Your task to perform on an android device: toggle show notifications on the lock screen Image 0: 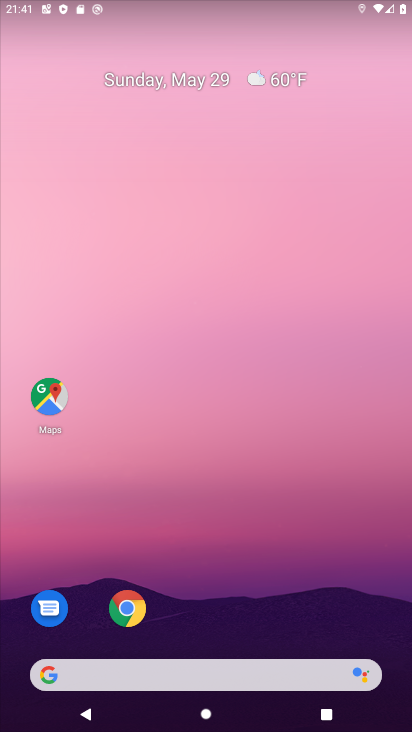
Step 0: drag from (381, 630) to (368, 189)
Your task to perform on an android device: toggle show notifications on the lock screen Image 1: 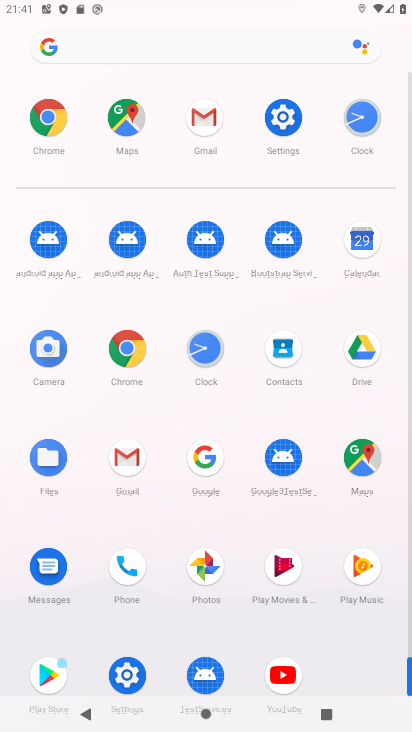
Step 1: click (286, 134)
Your task to perform on an android device: toggle show notifications on the lock screen Image 2: 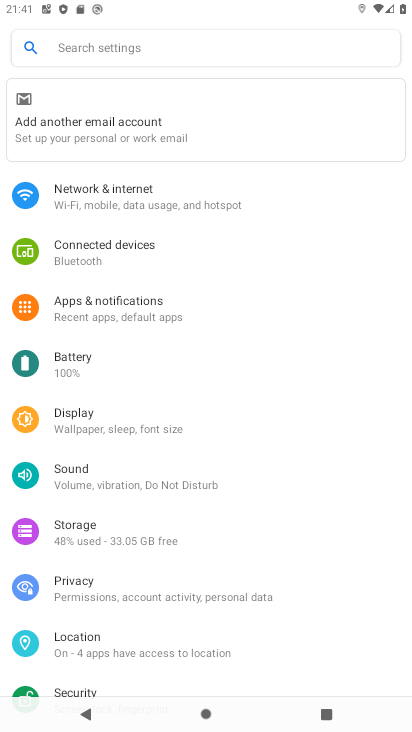
Step 2: drag from (325, 565) to (339, 444)
Your task to perform on an android device: toggle show notifications on the lock screen Image 3: 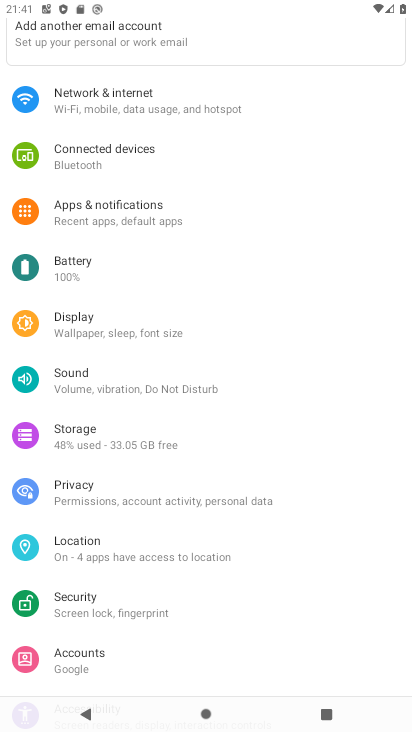
Step 3: drag from (331, 601) to (352, 460)
Your task to perform on an android device: toggle show notifications on the lock screen Image 4: 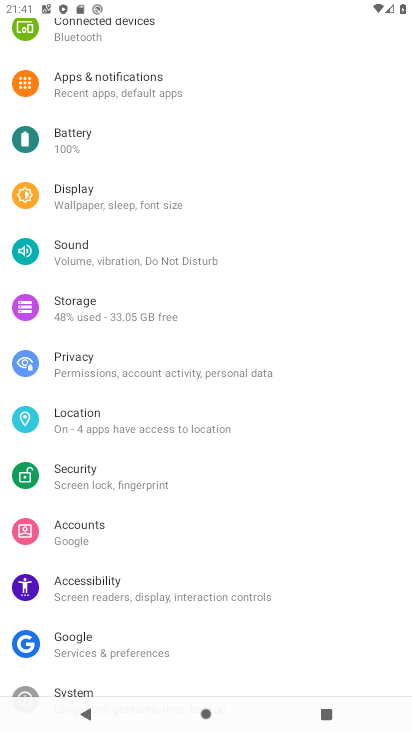
Step 4: drag from (350, 622) to (346, 476)
Your task to perform on an android device: toggle show notifications on the lock screen Image 5: 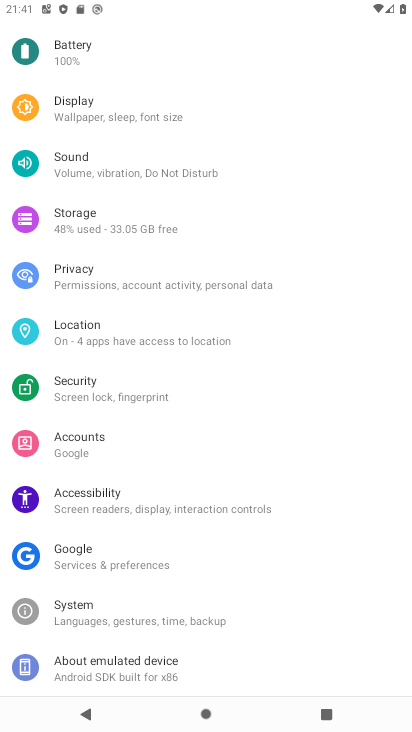
Step 5: drag from (352, 631) to (363, 413)
Your task to perform on an android device: toggle show notifications on the lock screen Image 6: 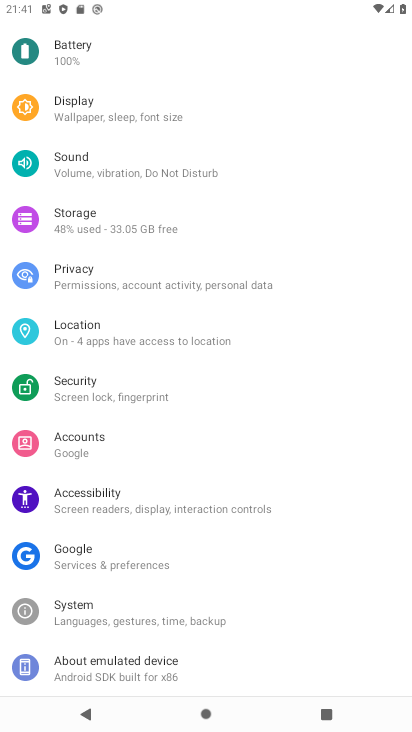
Step 6: drag from (370, 290) to (361, 418)
Your task to perform on an android device: toggle show notifications on the lock screen Image 7: 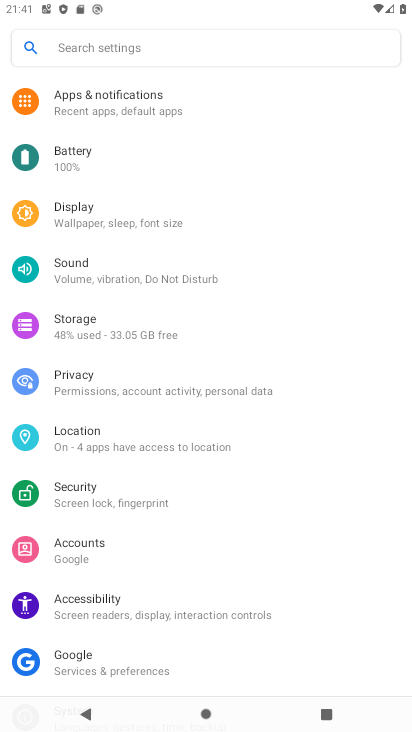
Step 7: drag from (356, 276) to (368, 398)
Your task to perform on an android device: toggle show notifications on the lock screen Image 8: 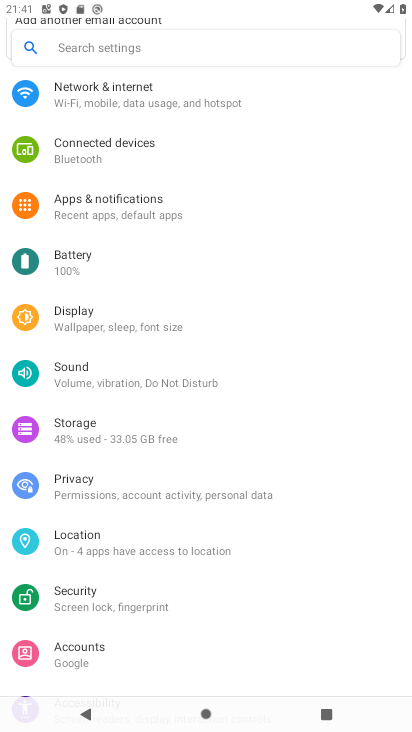
Step 8: drag from (369, 251) to (366, 393)
Your task to perform on an android device: toggle show notifications on the lock screen Image 9: 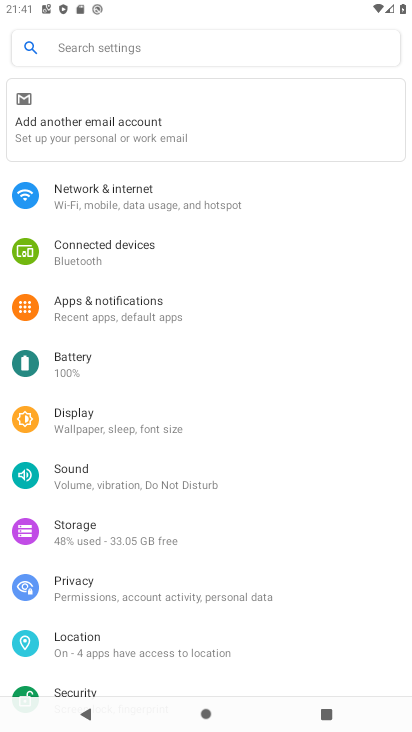
Step 9: drag from (339, 258) to (343, 455)
Your task to perform on an android device: toggle show notifications on the lock screen Image 10: 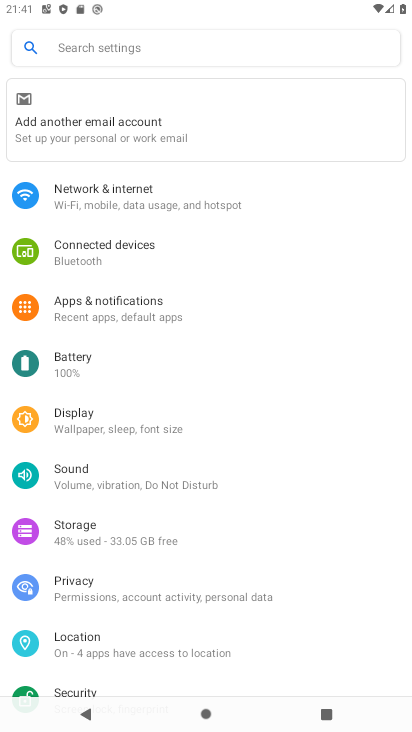
Step 10: click (206, 318)
Your task to perform on an android device: toggle show notifications on the lock screen Image 11: 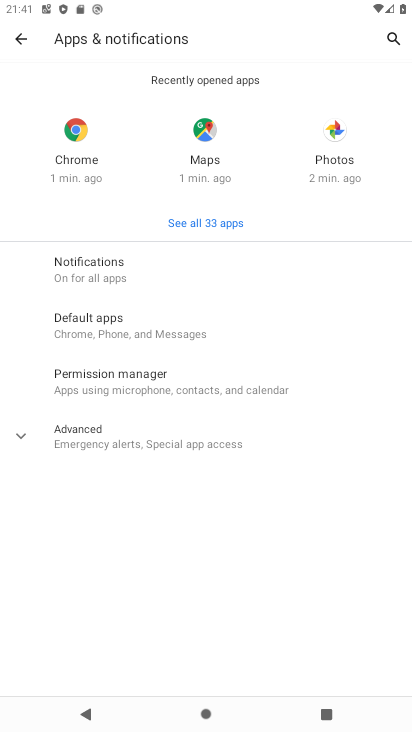
Step 11: click (170, 270)
Your task to perform on an android device: toggle show notifications on the lock screen Image 12: 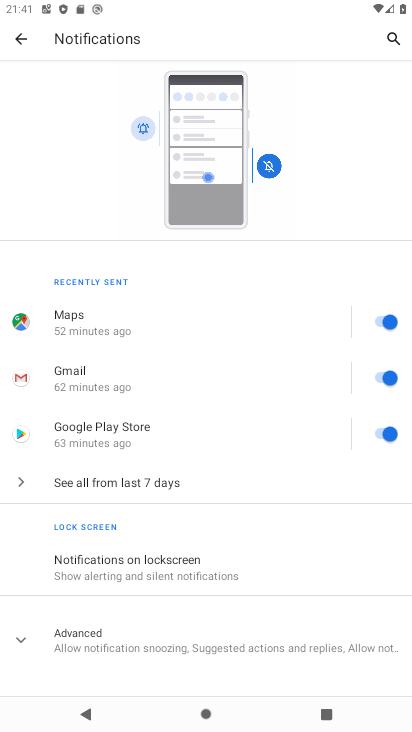
Step 12: drag from (288, 487) to (289, 255)
Your task to perform on an android device: toggle show notifications on the lock screen Image 13: 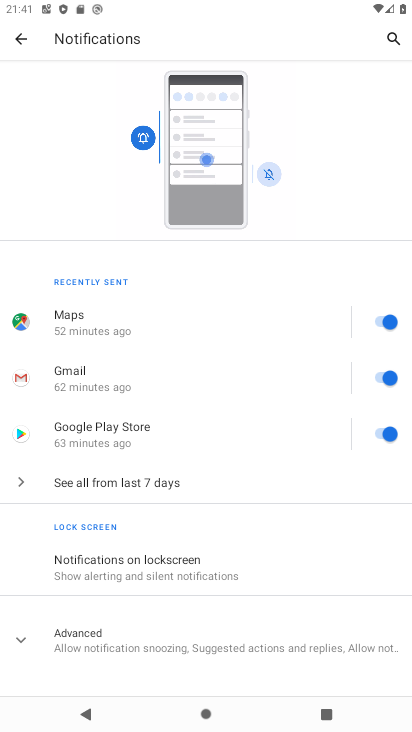
Step 13: click (209, 567)
Your task to perform on an android device: toggle show notifications on the lock screen Image 14: 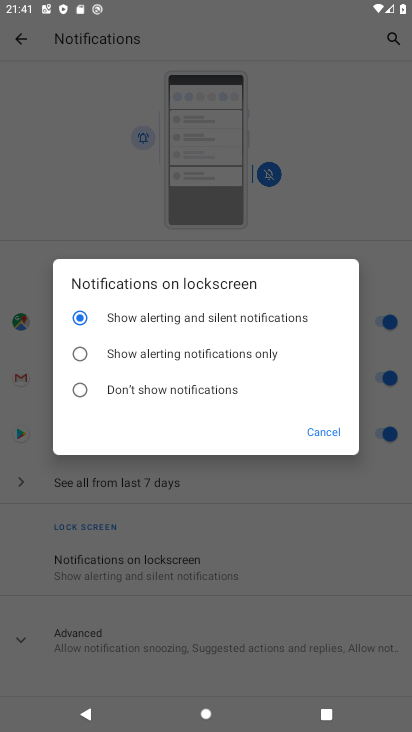
Step 14: click (114, 348)
Your task to perform on an android device: toggle show notifications on the lock screen Image 15: 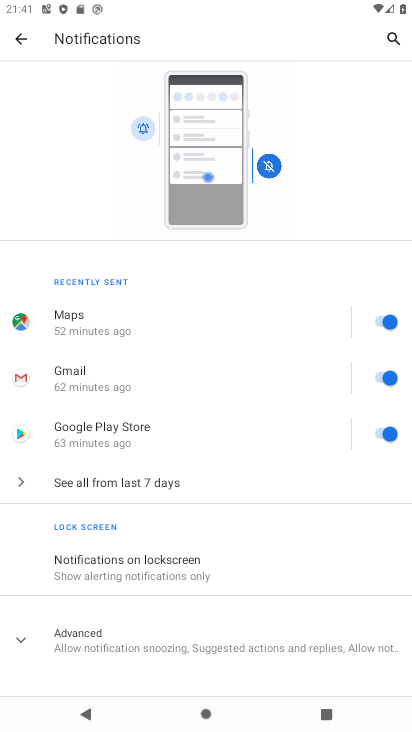
Step 15: task complete